Your task to perform on an android device: Go to accessibility settings Image 0: 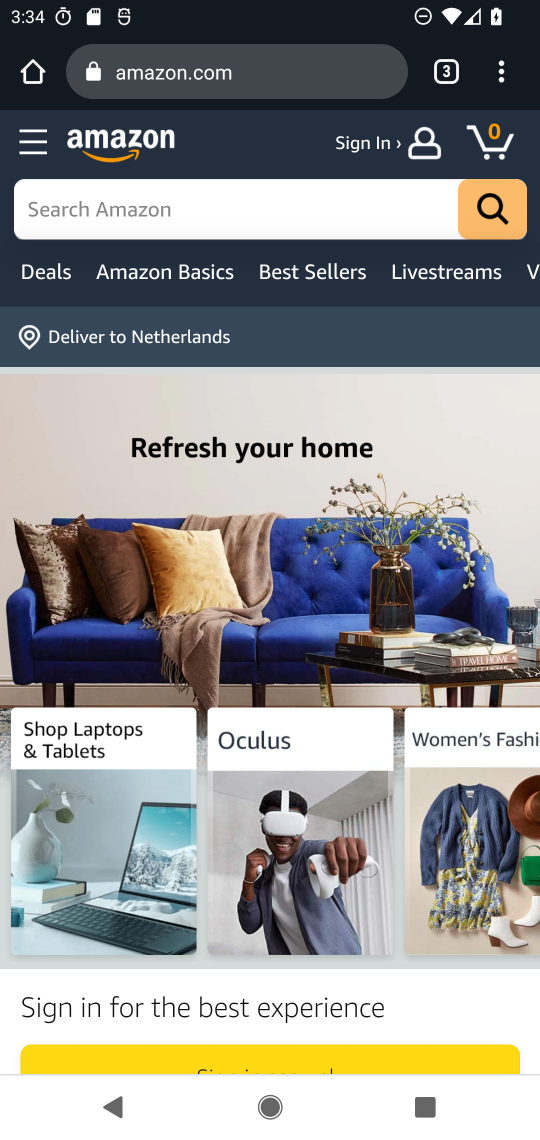
Step 0: press home button
Your task to perform on an android device: Go to accessibility settings Image 1: 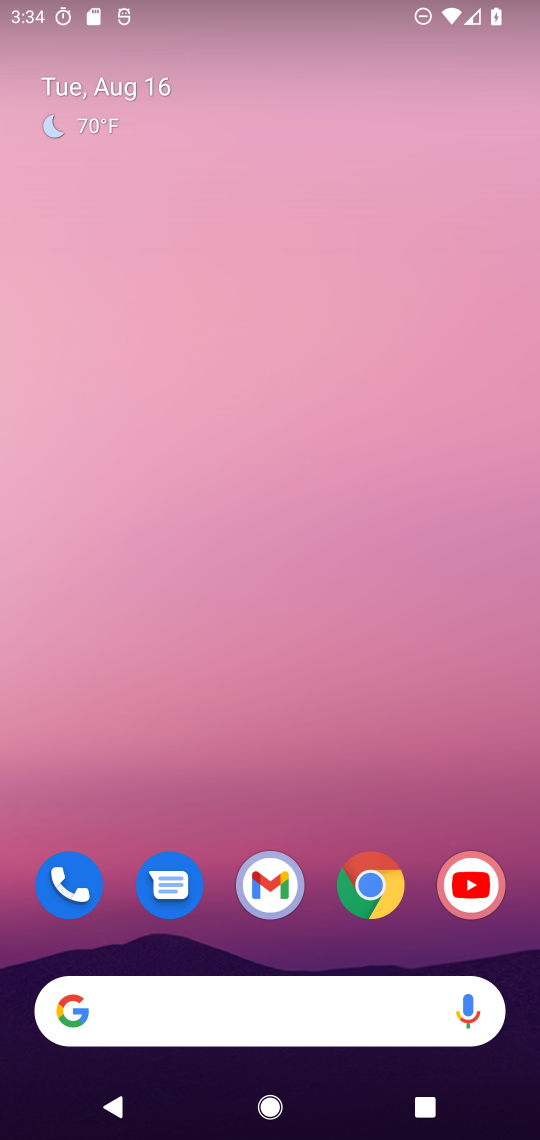
Step 1: drag from (292, 869) to (347, 272)
Your task to perform on an android device: Go to accessibility settings Image 2: 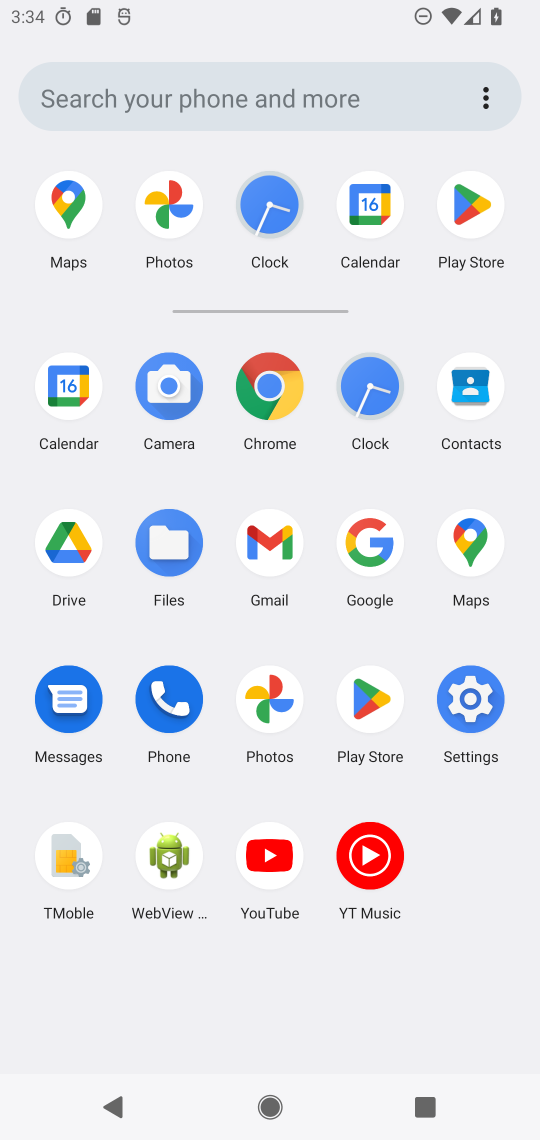
Step 2: click (472, 687)
Your task to perform on an android device: Go to accessibility settings Image 3: 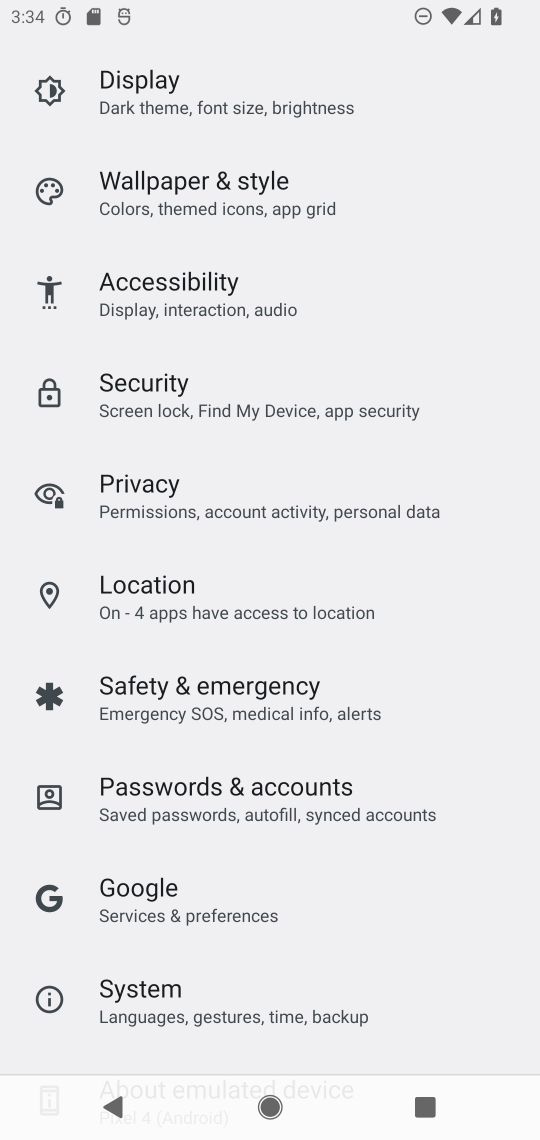
Step 3: click (228, 304)
Your task to perform on an android device: Go to accessibility settings Image 4: 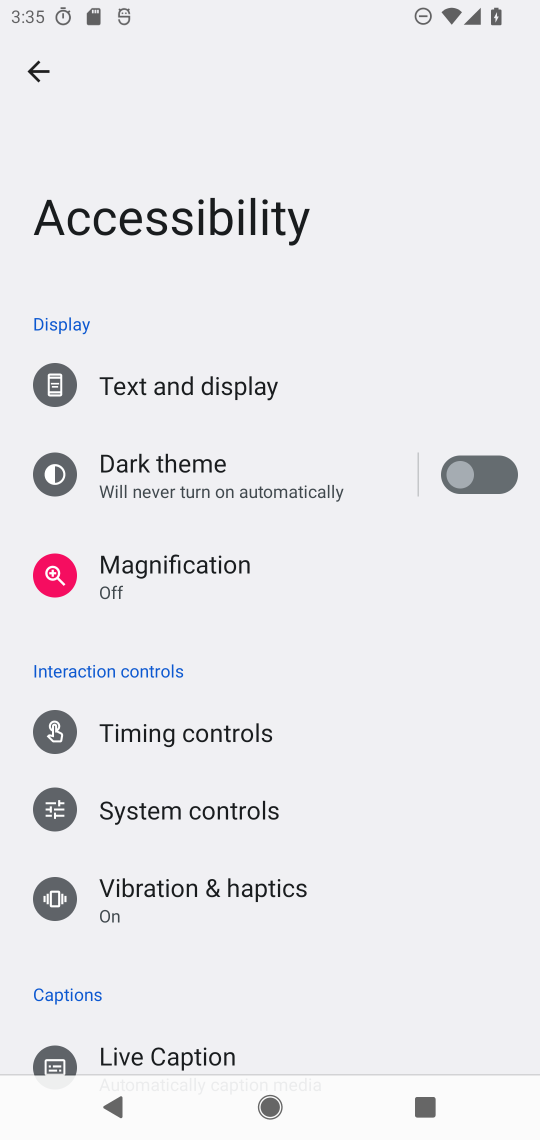
Step 4: task complete